Your task to perform on an android device: Go to settings Image 0: 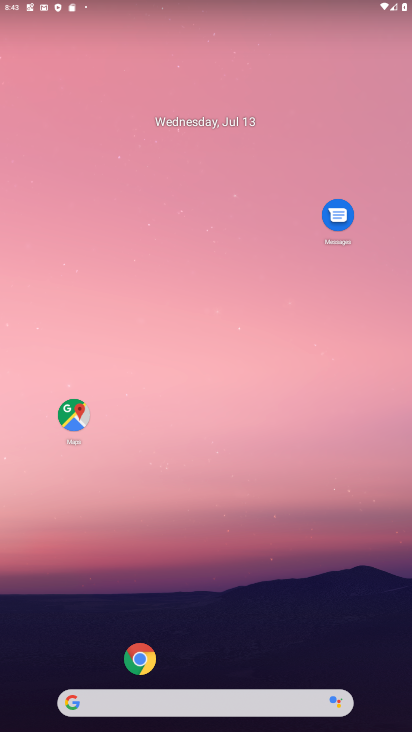
Step 0: drag from (23, 685) to (177, 102)
Your task to perform on an android device: Go to settings Image 1: 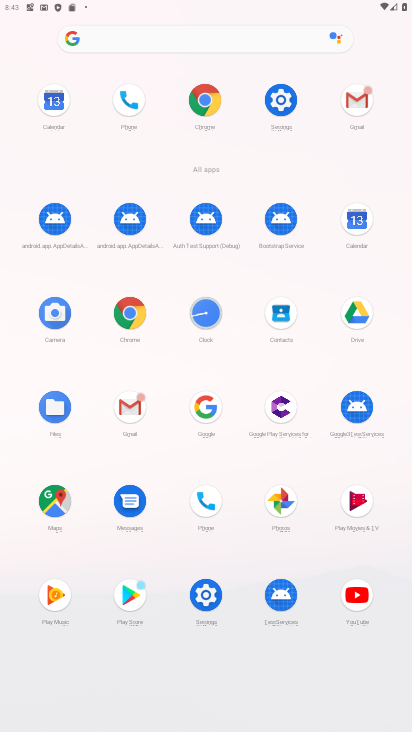
Step 1: click (191, 586)
Your task to perform on an android device: Go to settings Image 2: 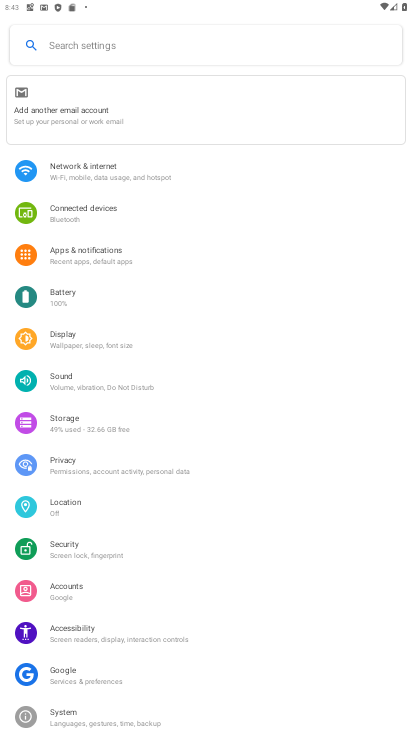
Step 2: task complete